Your task to perform on an android device: Open the map Image 0: 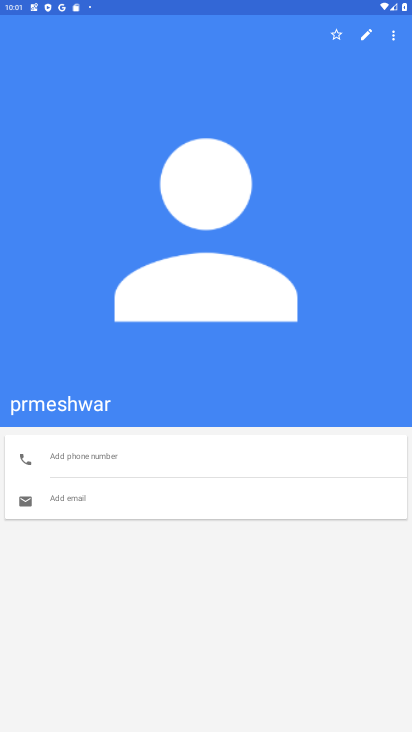
Step 0: press home button
Your task to perform on an android device: Open the map Image 1: 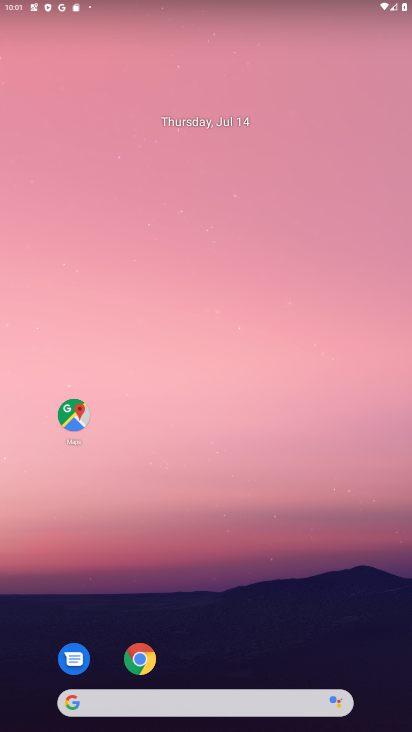
Step 1: drag from (301, 653) to (278, 213)
Your task to perform on an android device: Open the map Image 2: 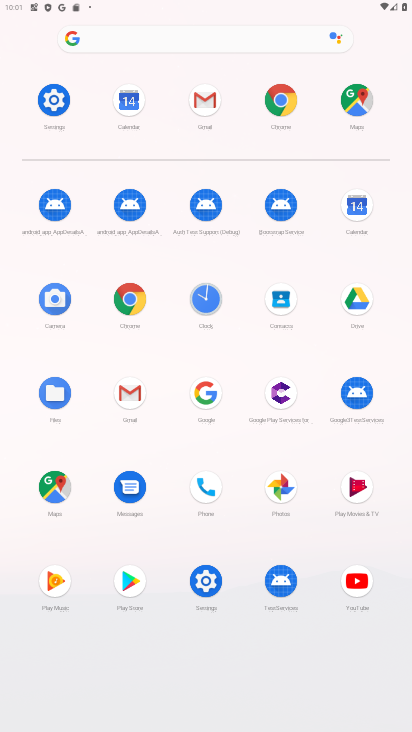
Step 2: click (135, 300)
Your task to perform on an android device: Open the map Image 3: 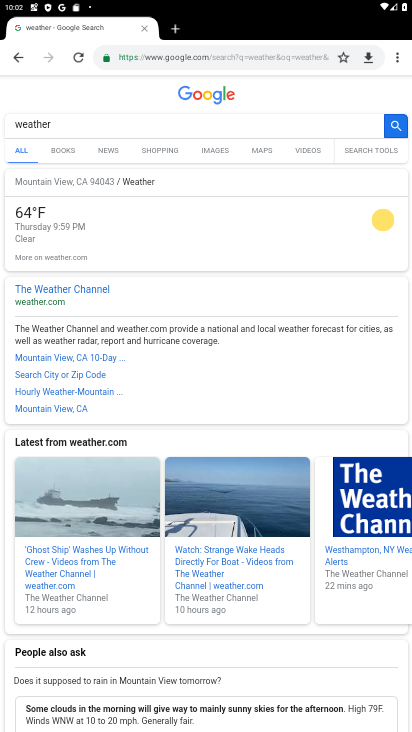
Step 3: press home button
Your task to perform on an android device: Open the map Image 4: 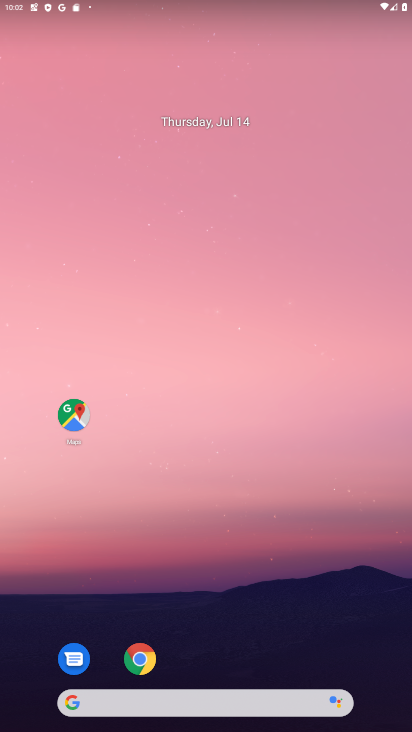
Step 4: drag from (255, 556) to (274, 217)
Your task to perform on an android device: Open the map Image 5: 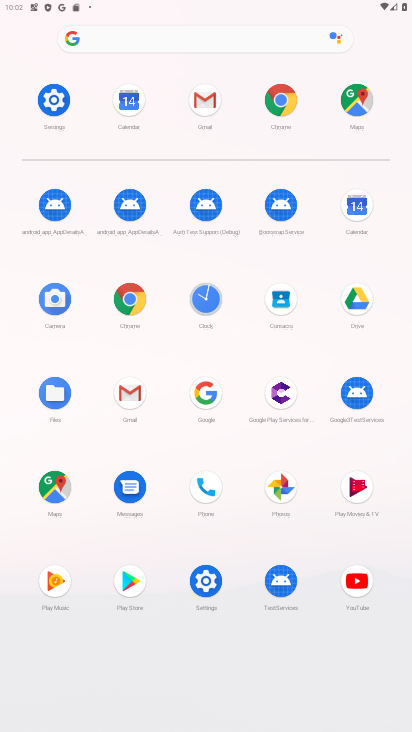
Step 5: click (53, 484)
Your task to perform on an android device: Open the map Image 6: 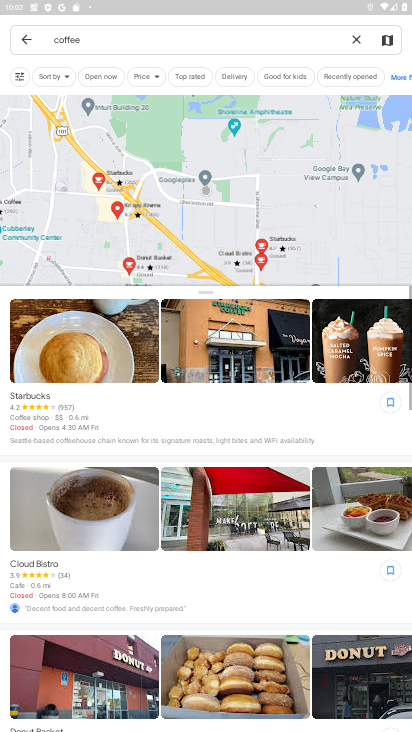
Step 6: task complete